Your task to perform on an android device: toggle priority inbox in the gmail app Image 0: 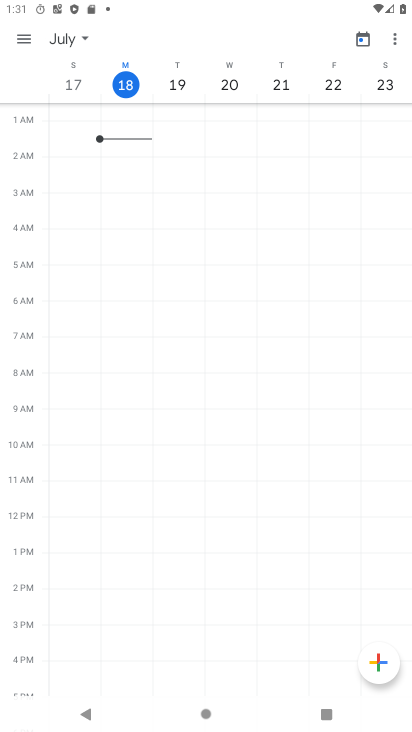
Step 0: press home button
Your task to perform on an android device: toggle priority inbox in the gmail app Image 1: 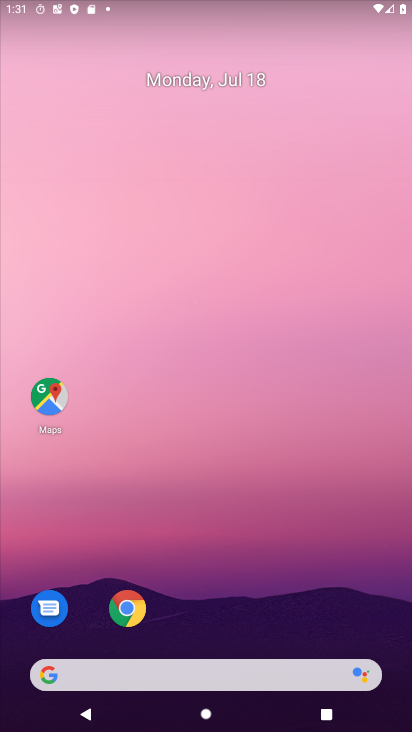
Step 1: drag from (241, 718) to (231, 156)
Your task to perform on an android device: toggle priority inbox in the gmail app Image 2: 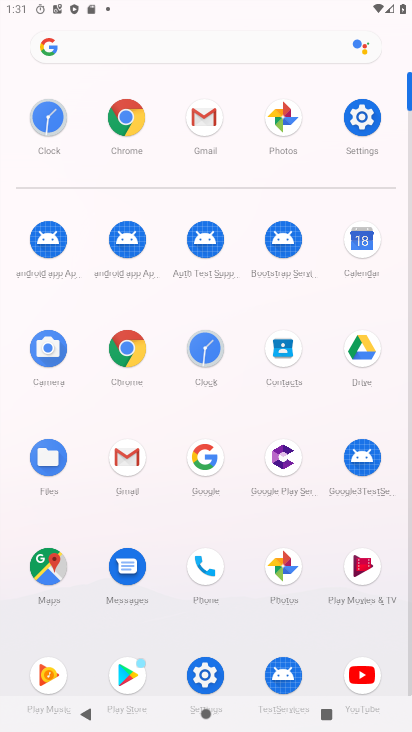
Step 2: click (132, 451)
Your task to perform on an android device: toggle priority inbox in the gmail app Image 3: 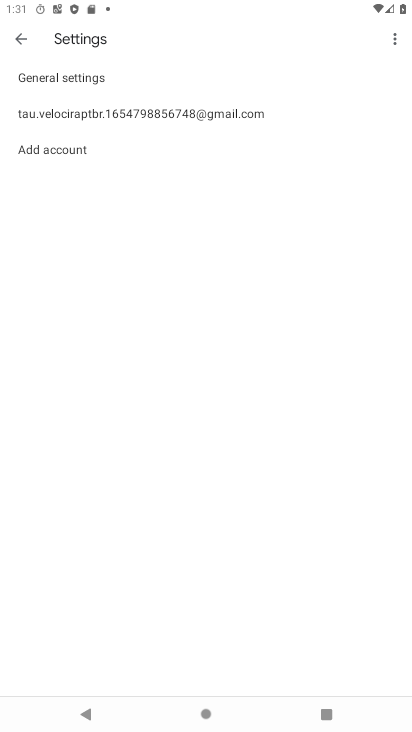
Step 3: click (106, 109)
Your task to perform on an android device: toggle priority inbox in the gmail app Image 4: 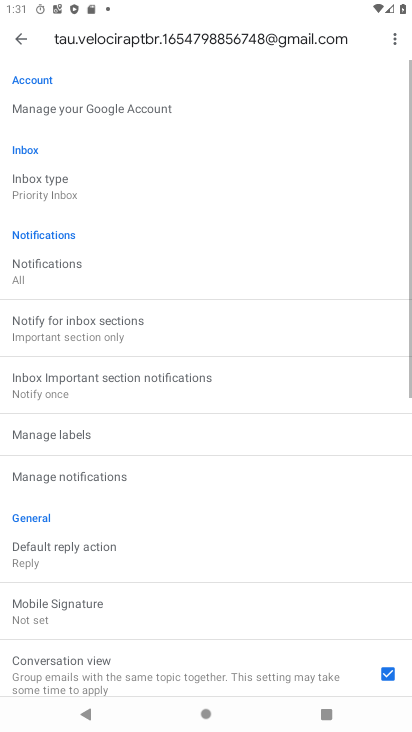
Step 4: click (49, 195)
Your task to perform on an android device: toggle priority inbox in the gmail app Image 5: 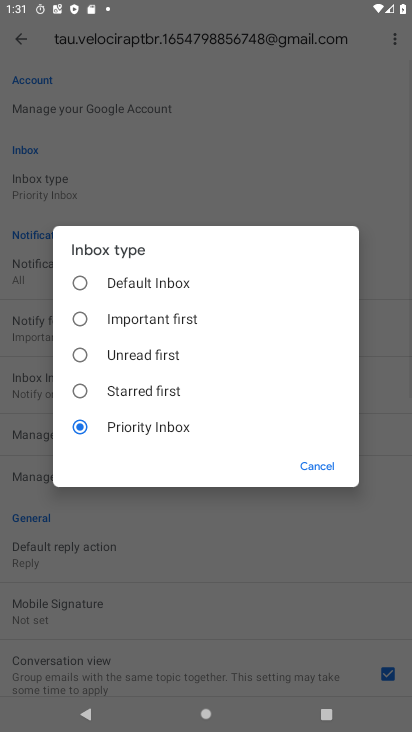
Step 5: click (78, 282)
Your task to perform on an android device: toggle priority inbox in the gmail app Image 6: 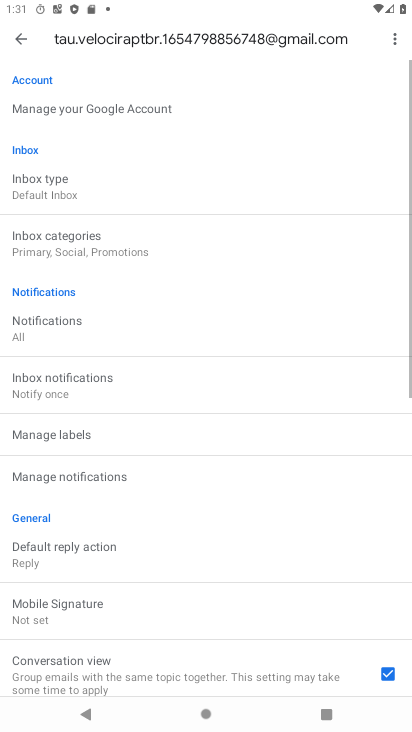
Step 6: task complete